Your task to perform on an android device: see tabs open on other devices in the chrome app Image 0: 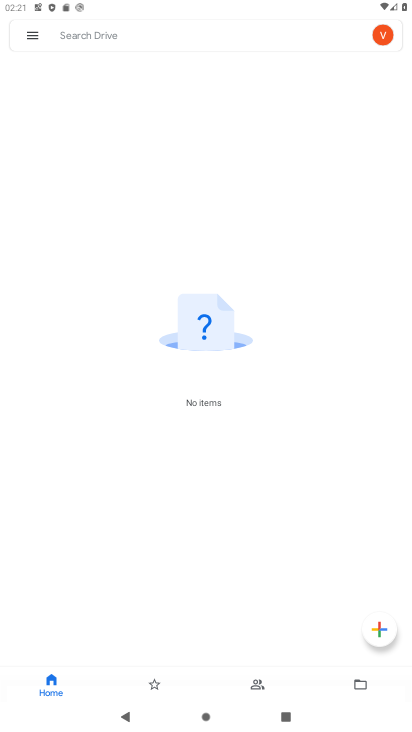
Step 0: press home button
Your task to perform on an android device: see tabs open on other devices in the chrome app Image 1: 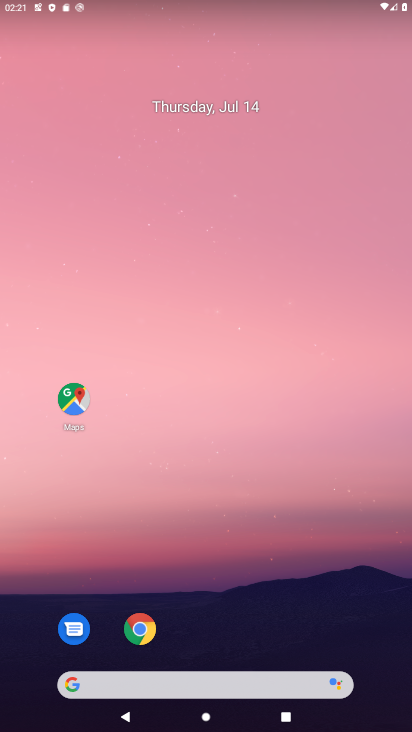
Step 1: click (148, 632)
Your task to perform on an android device: see tabs open on other devices in the chrome app Image 2: 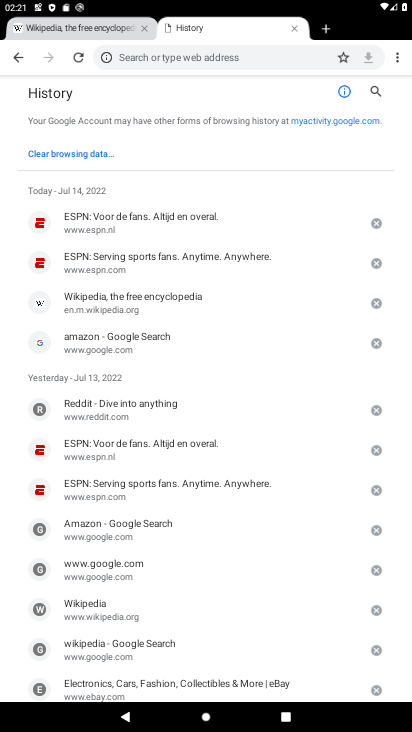
Step 2: click (394, 48)
Your task to perform on an android device: see tabs open on other devices in the chrome app Image 3: 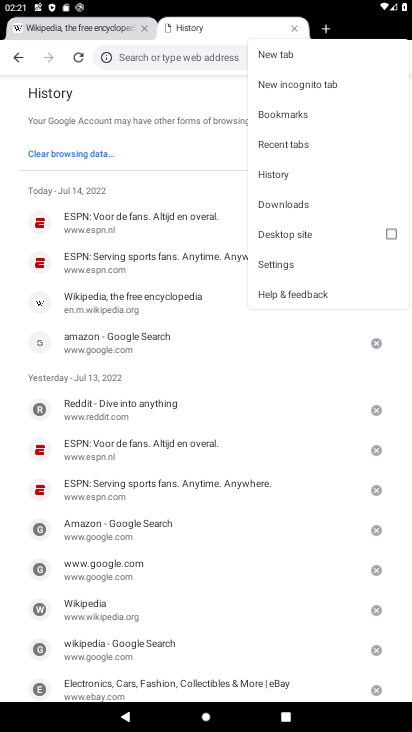
Step 3: click (302, 147)
Your task to perform on an android device: see tabs open on other devices in the chrome app Image 4: 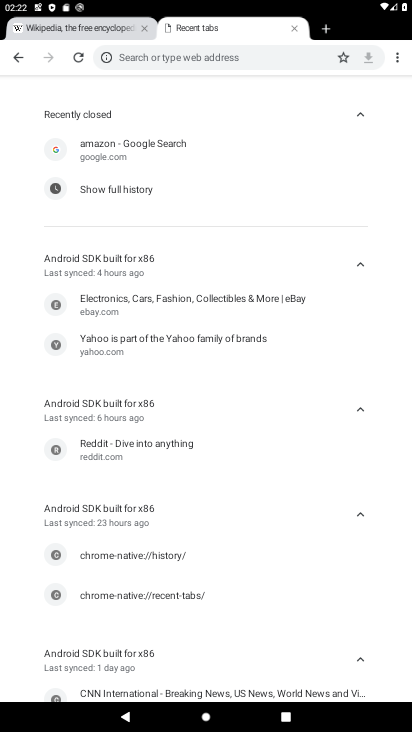
Step 4: task complete